Your task to perform on an android device: Go to Wikipedia Image 0: 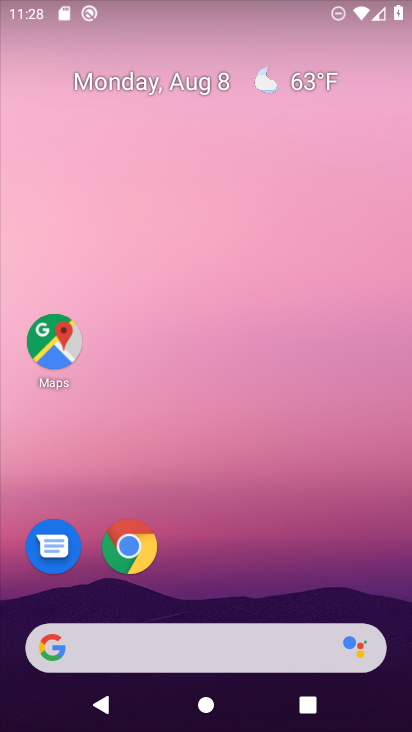
Step 0: drag from (219, 611) to (216, 100)
Your task to perform on an android device: Go to Wikipedia Image 1: 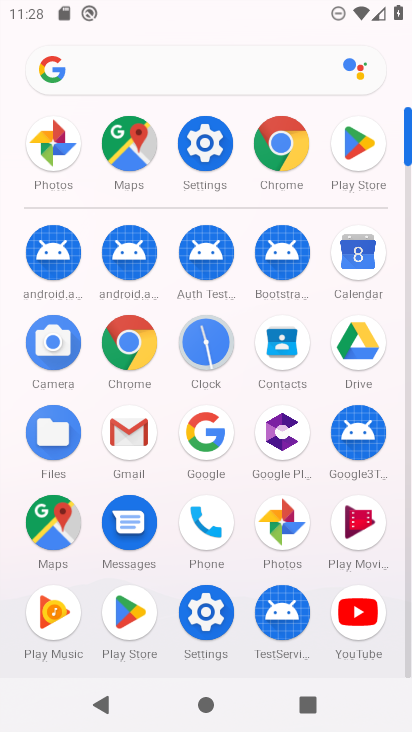
Step 1: click (126, 338)
Your task to perform on an android device: Go to Wikipedia Image 2: 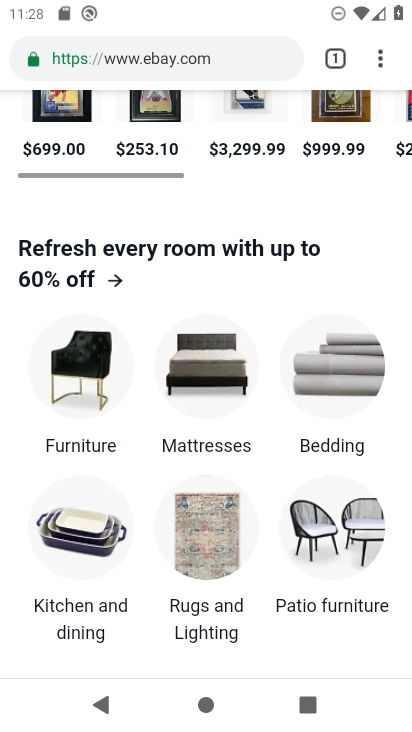
Step 2: click (334, 55)
Your task to perform on an android device: Go to Wikipedia Image 3: 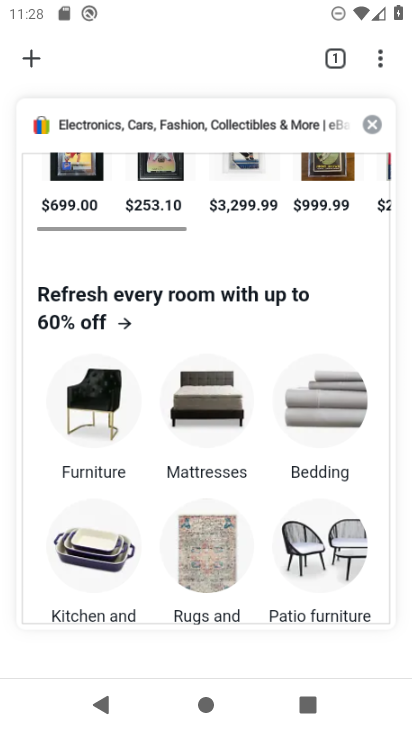
Step 3: click (24, 55)
Your task to perform on an android device: Go to Wikipedia Image 4: 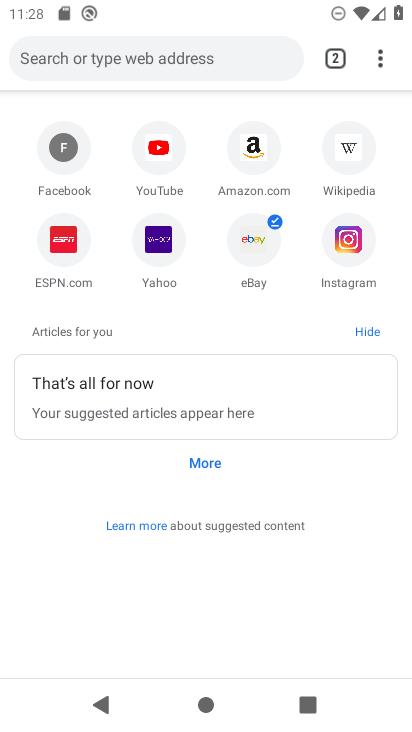
Step 4: click (346, 144)
Your task to perform on an android device: Go to Wikipedia Image 5: 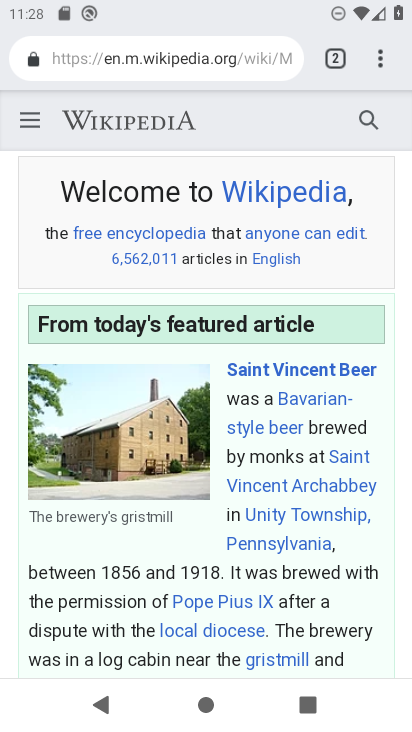
Step 5: task complete